Your task to perform on an android device: Go to Yahoo.com Image 0: 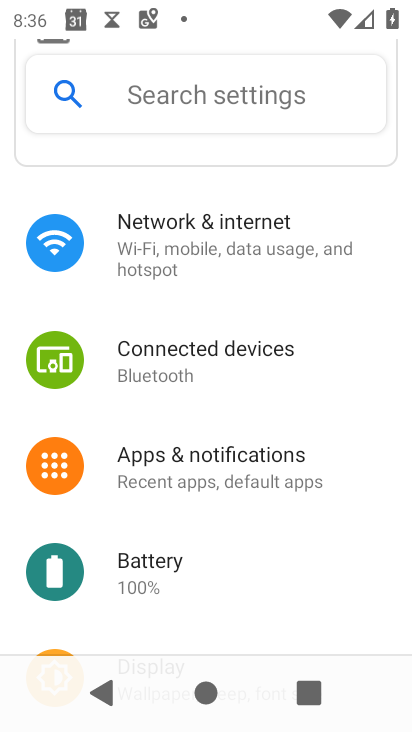
Step 0: press home button
Your task to perform on an android device: Go to Yahoo.com Image 1: 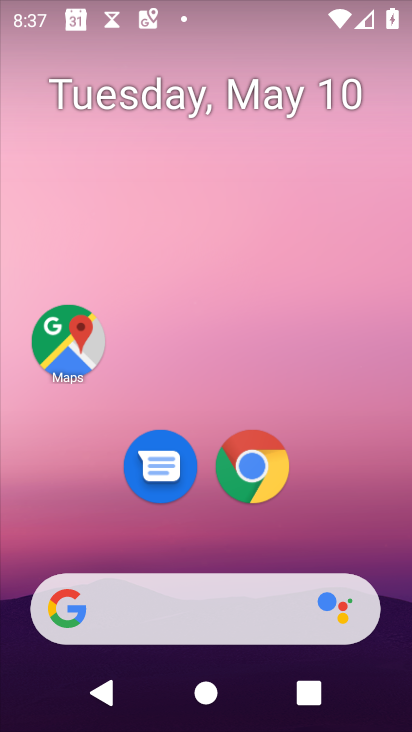
Step 1: click (260, 460)
Your task to perform on an android device: Go to Yahoo.com Image 2: 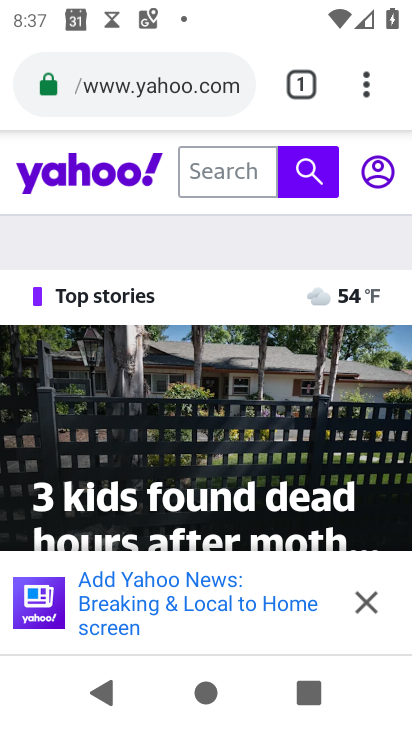
Step 2: task complete